Your task to perform on an android device: Open the stopwatch Image 0: 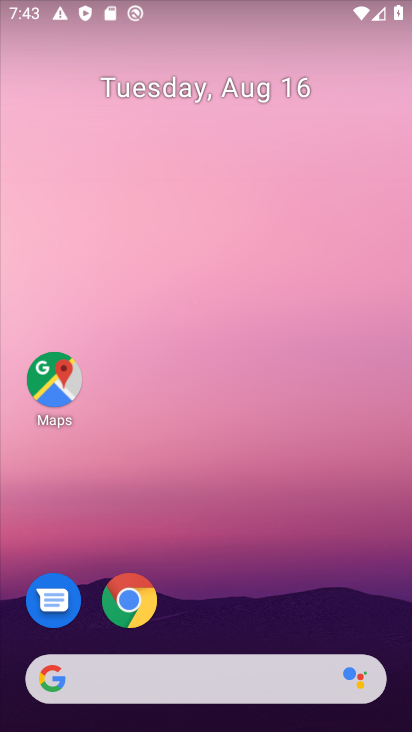
Step 0: drag from (182, 608) to (331, 115)
Your task to perform on an android device: Open the stopwatch Image 1: 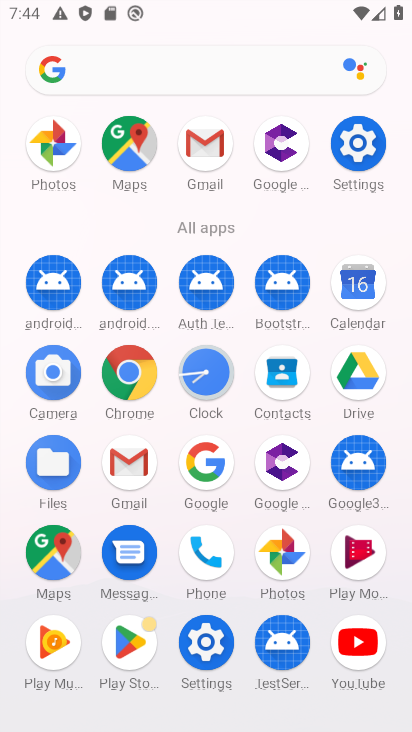
Step 1: click (202, 374)
Your task to perform on an android device: Open the stopwatch Image 2: 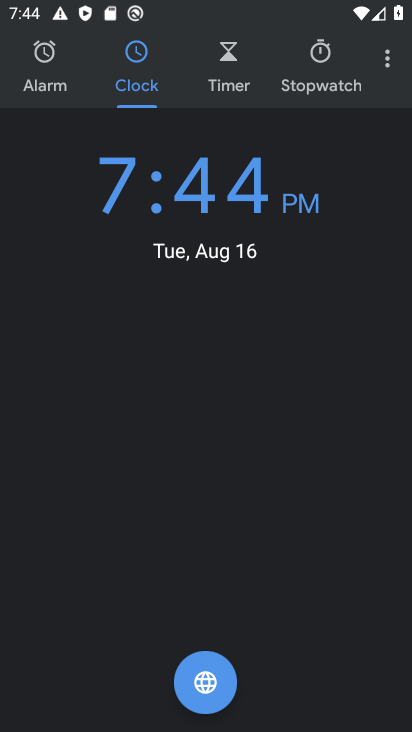
Step 2: click (328, 60)
Your task to perform on an android device: Open the stopwatch Image 3: 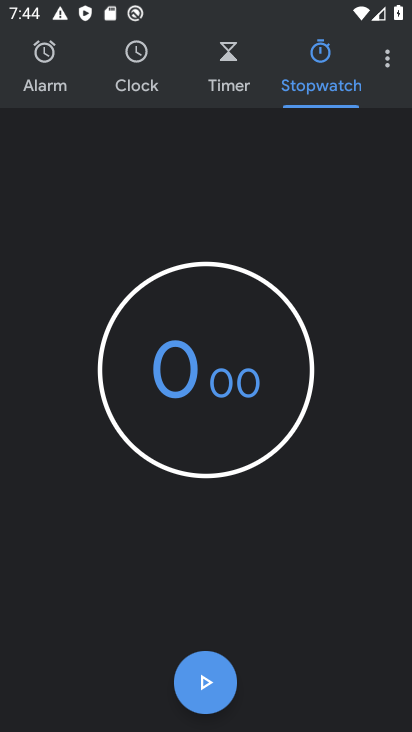
Step 3: task complete